Your task to perform on an android device: Clear the cart on newegg.com. Search for rayovac triple a on newegg.com, select the first entry, add it to the cart, then select checkout. Image 0: 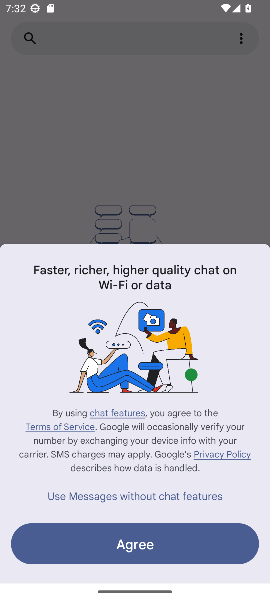
Step 0: press home button
Your task to perform on an android device: Clear the cart on newegg.com. Search for rayovac triple a on newegg.com, select the first entry, add it to the cart, then select checkout. Image 1: 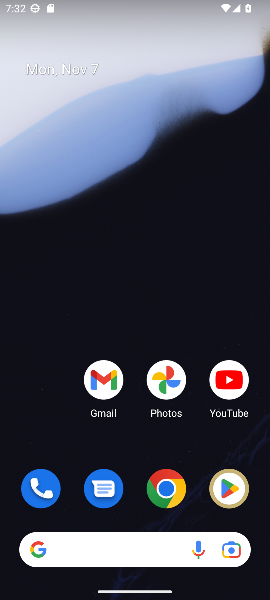
Step 1: click (173, 500)
Your task to perform on an android device: Clear the cart on newegg.com. Search for rayovac triple a on newegg.com, select the first entry, add it to the cart, then select checkout. Image 2: 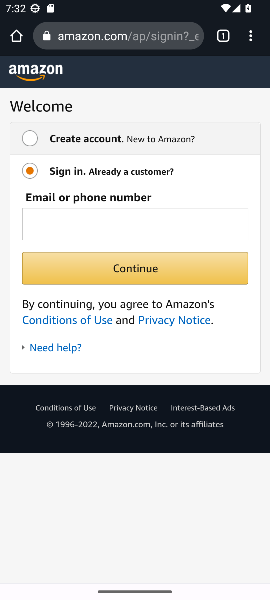
Step 2: click (153, 38)
Your task to perform on an android device: Clear the cart on newegg.com. Search for rayovac triple a on newegg.com, select the first entry, add it to the cart, then select checkout. Image 3: 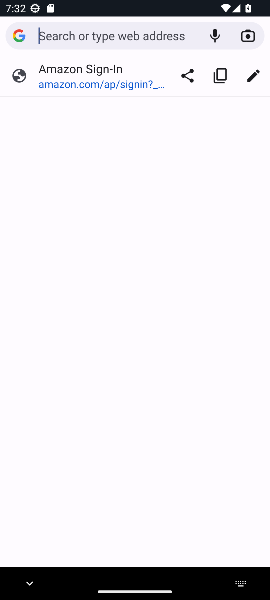
Step 3: type "newegg.com"
Your task to perform on an android device: Clear the cart on newegg.com. Search for rayovac triple a on newegg.com, select the first entry, add it to the cart, then select checkout. Image 4: 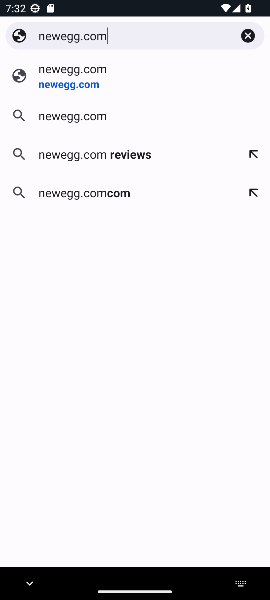
Step 4: click (82, 70)
Your task to perform on an android device: Clear the cart on newegg.com. Search for rayovac triple a on newegg.com, select the first entry, add it to the cart, then select checkout. Image 5: 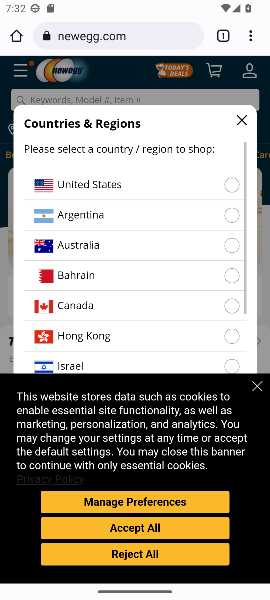
Step 5: click (225, 184)
Your task to perform on an android device: Clear the cart on newegg.com. Search for rayovac triple a on newegg.com, select the first entry, add it to the cart, then select checkout. Image 6: 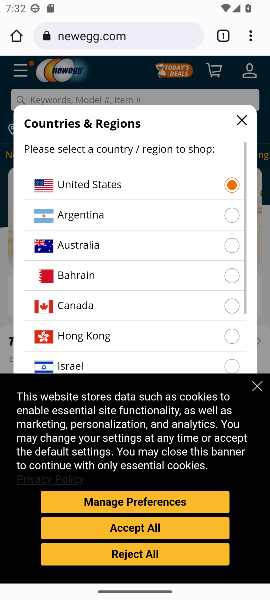
Step 6: click (257, 384)
Your task to perform on an android device: Clear the cart on newegg.com. Search for rayovac triple a on newegg.com, select the first entry, add it to the cart, then select checkout. Image 7: 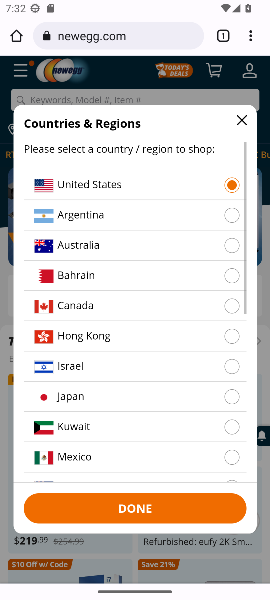
Step 7: click (200, 501)
Your task to perform on an android device: Clear the cart on newegg.com. Search for rayovac triple a on newegg.com, select the first entry, add it to the cart, then select checkout. Image 8: 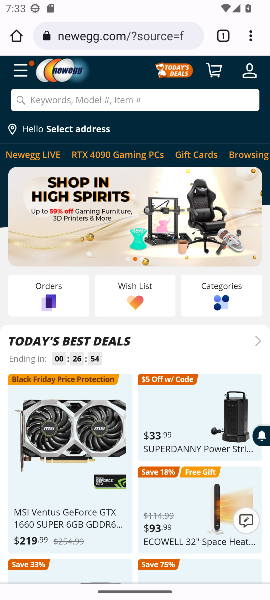
Step 8: click (128, 97)
Your task to perform on an android device: Clear the cart on newegg.com. Search for rayovac triple a on newegg.com, select the first entry, add it to the cart, then select checkout. Image 9: 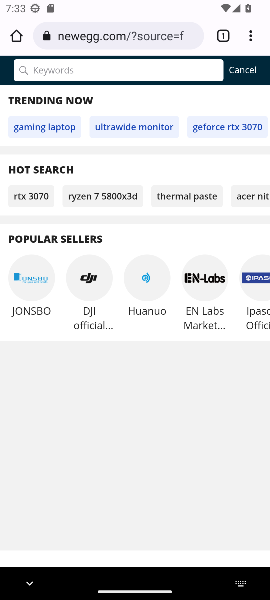
Step 9: type "rayovac triple a"
Your task to perform on an android device: Clear the cart on newegg.com. Search for rayovac triple a on newegg.com, select the first entry, add it to the cart, then select checkout. Image 10: 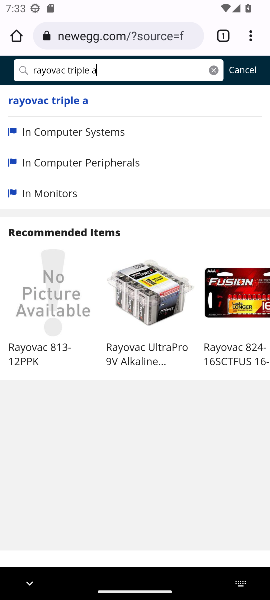
Step 10: click (183, 487)
Your task to perform on an android device: Clear the cart on newegg.com. Search for rayovac triple a on newegg.com, select the first entry, add it to the cart, then select checkout. Image 11: 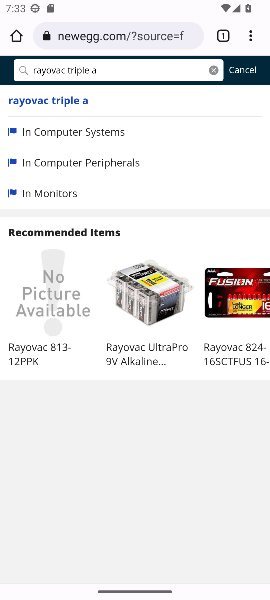
Step 11: click (182, 487)
Your task to perform on an android device: Clear the cart on newegg.com. Search for rayovac triple a on newegg.com, select the first entry, add it to the cart, then select checkout. Image 12: 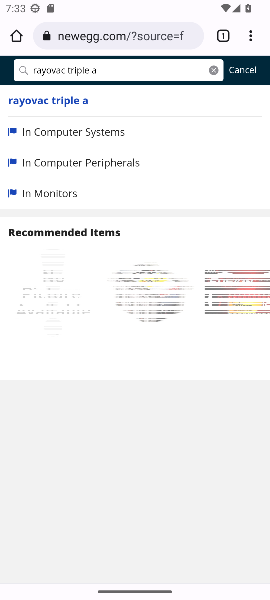
Step 12: click (149, 68)
Your task to perform on an android device: Clear the cart on newegg.com. Search for rayovac triple a on newegg.com, select the first entry, add it to the cart, then select checkout. Image 13: 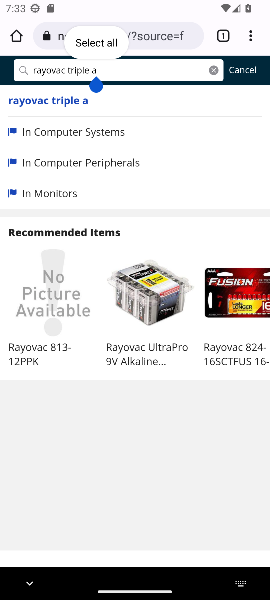
Step 13: task complete